Your task to perform on an android device: Go to CNN.com Image 0: 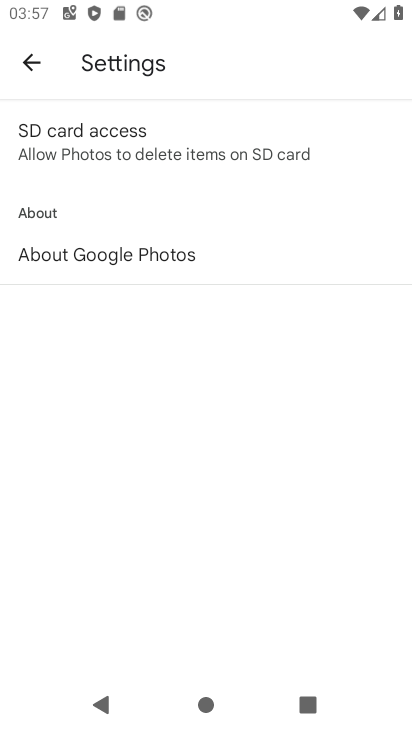
Step 0: press home button
Your task to perform on an android device: Go to CNN.com Image 1: 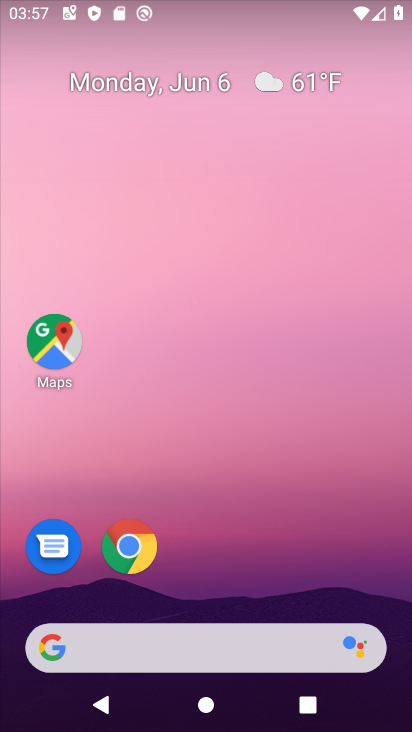
Step 1: click (52, 637)
Your task to perform on an android device: Go to CNN.com Image 2: 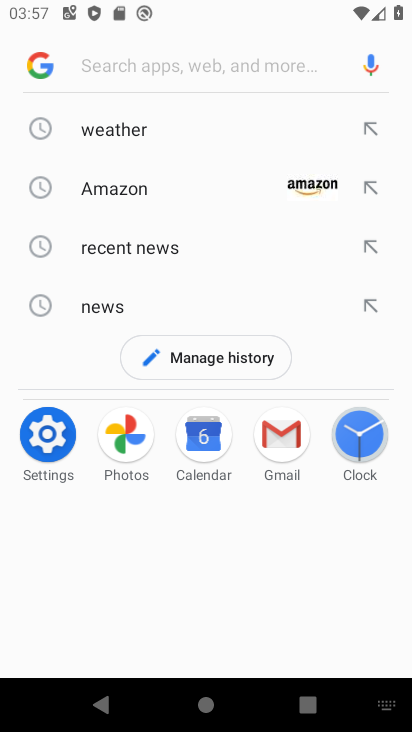
Step 2: type "CNN.com"
Your task to perform on an android device: Go to CNN.com Image 3: 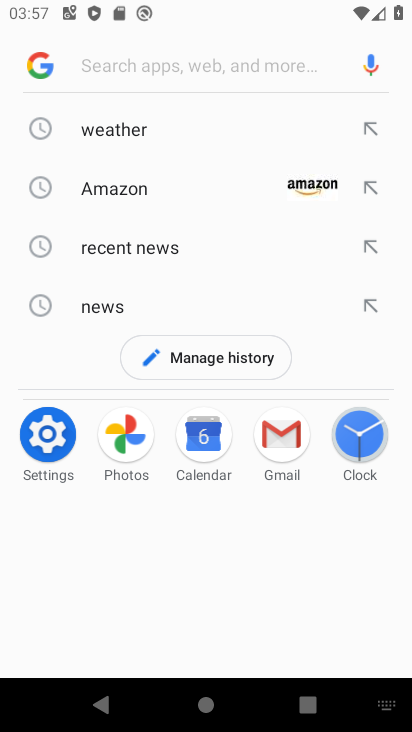
Step 3: click (124, 75)
Your task to perform on an android device: Go to CNN.com Image 4: 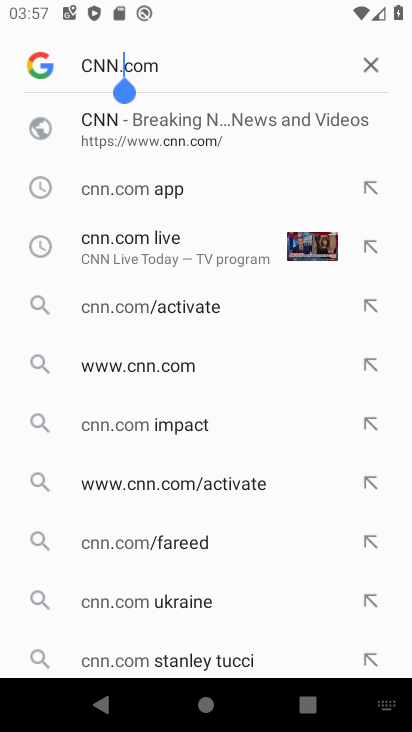
Step 4: click (105, 118)
Your task to perform on an android device: Go to CNN.com Image 5: 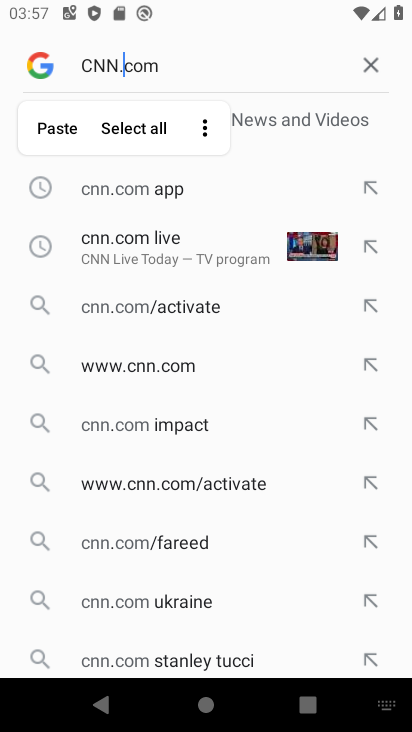
Step 5: click (248, 158)
Your task to perform on an android device: Go to CNN.com Image 6: 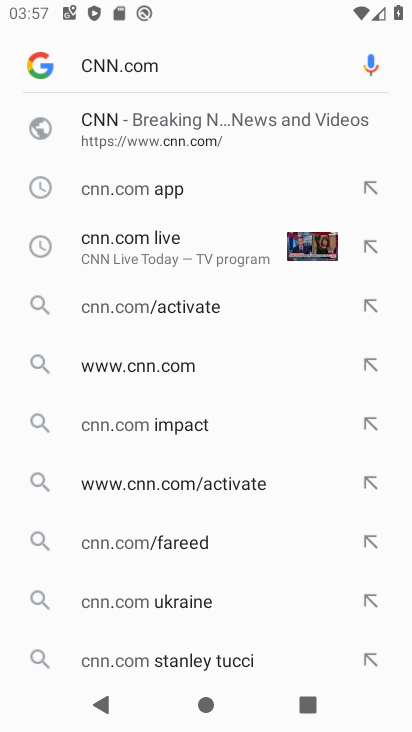
Step 6: click (198, 67)
Your task to perform on an android device: Go to CNN.com Image 7: 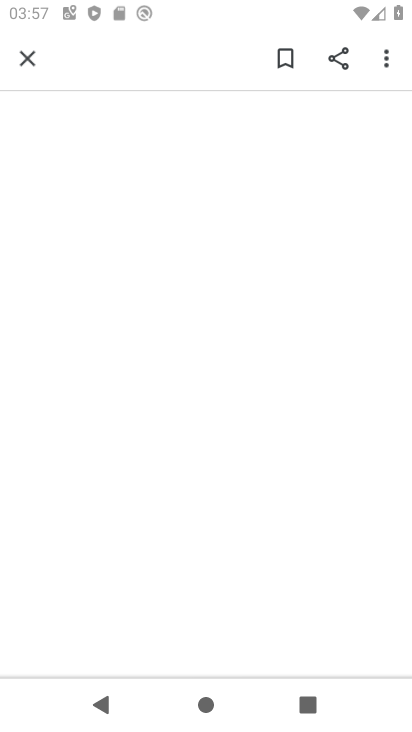
Step 7: click (132, 119)
Your task to perform on an android device: Go to CNN.com Image 8: 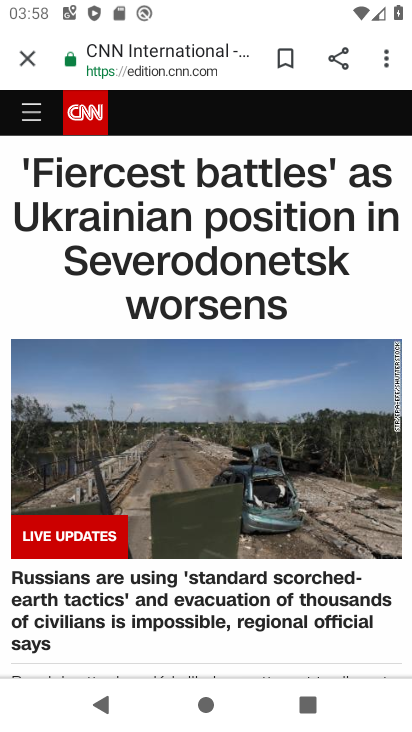
Step 8: task complete